Your task to perform on an android device: Search for seafood restaurants on Google Maps Image 0: 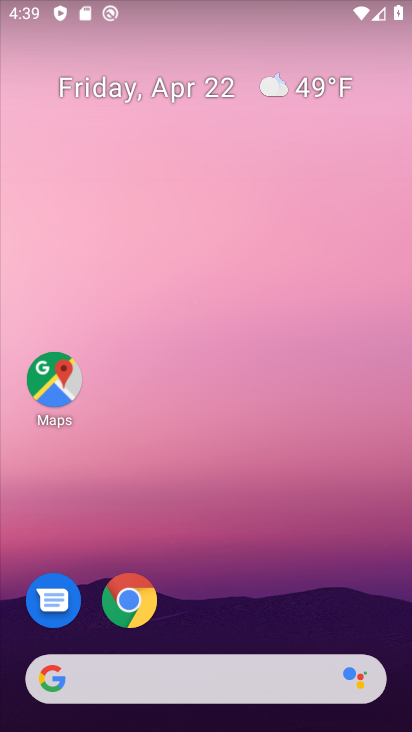
Step 0: click (57, 378)
Your task to perform on an android device: Search for seafood restaurants on Google Maps Image 1: 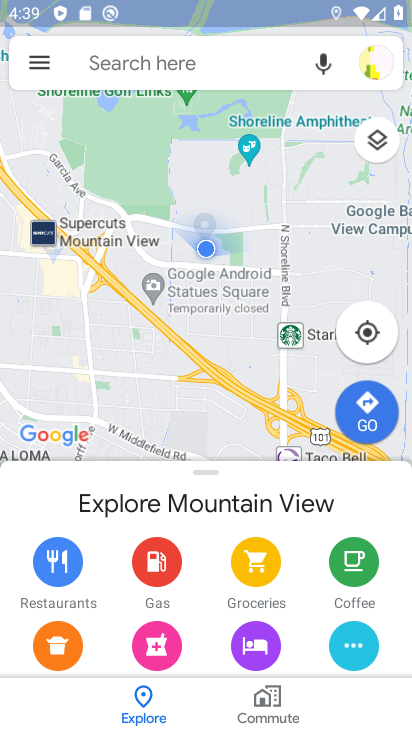
Step 1: click (174, 62)
Your task to perform on an android device: Search for seafood restaurants on Google Maps Image 2: 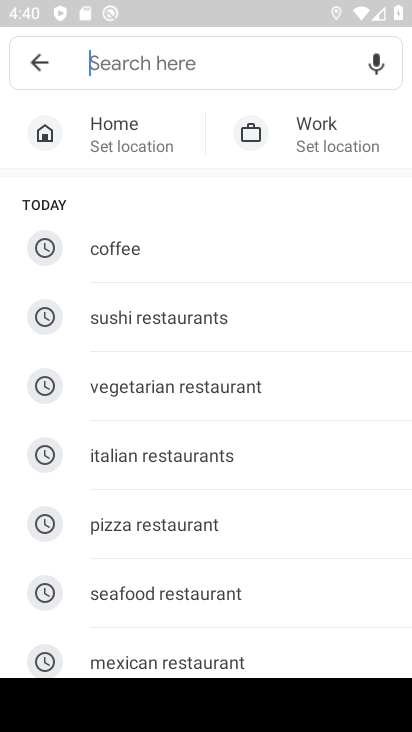
Step 2: type "seafood restaurants"
Your task to perform on an android device: Search for seafood restaurants on Google Maps Image 3: 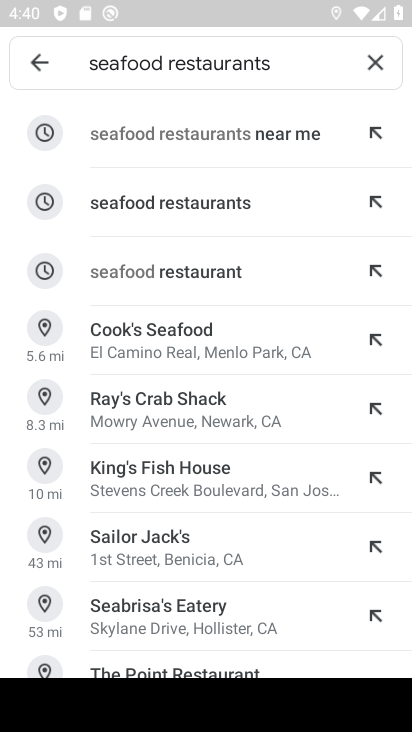
Step 3: click (163, 202)
Your task to perform on an android device: Search for seafood restaurants on Google Maps Image 4: 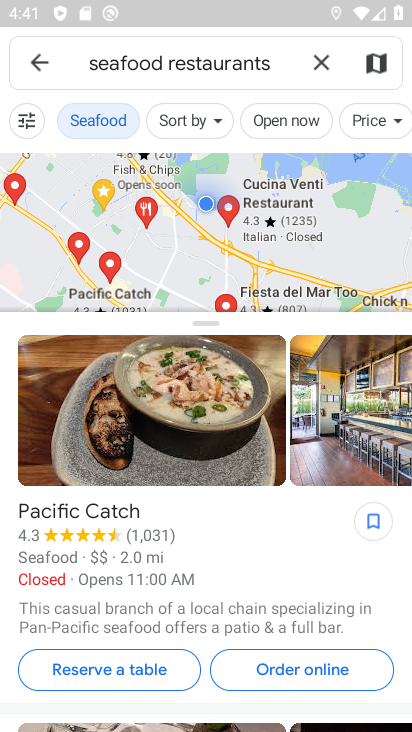
Step 4: task complete